Your task to perform on an android device: add a contact in the contacts app Image 0: 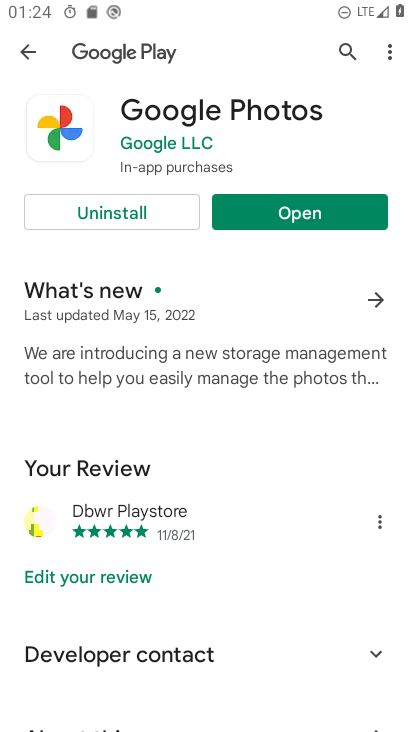
Step 0: press home button
Your task to perform on an android device: add a contact in the contacts app Image 1: 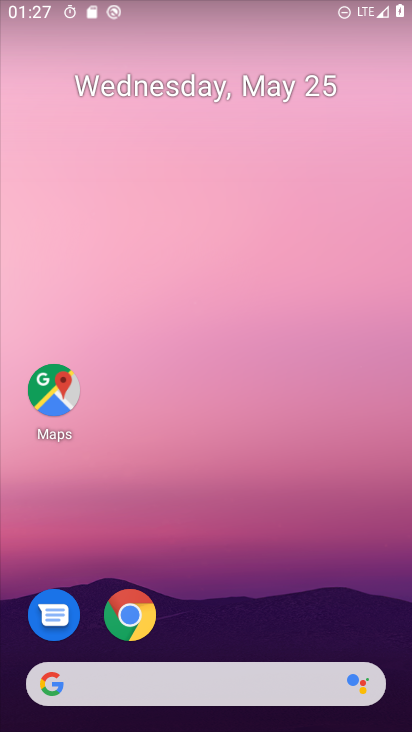
Step 1: drag from (223, 720) to (217, 195)
Your task to perform on an android device: add a contact in the contacts app Image 2: 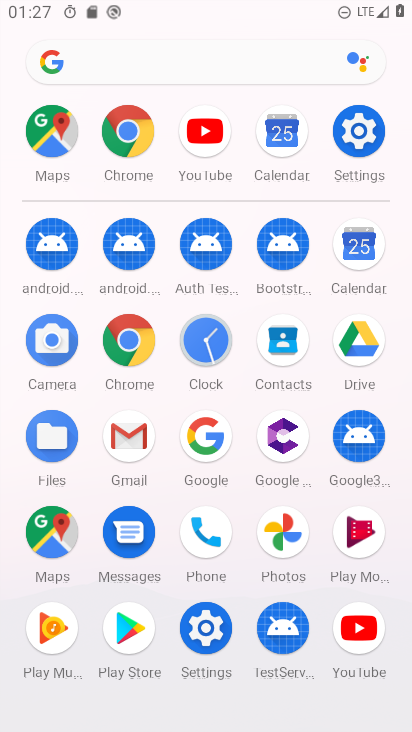
Step 2: click (210, 554)
Your task to perform on an android device: add a contact in the contacts app Image 3: 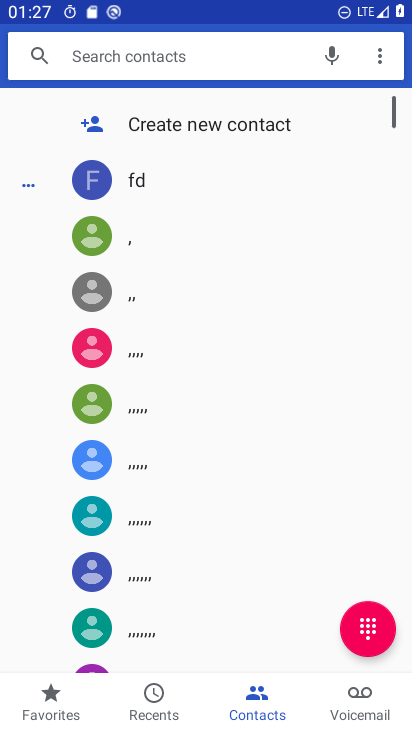
Step 3: click (172, 123)
Your task to perform on an android device: add a contact in the contacts app Image 4: 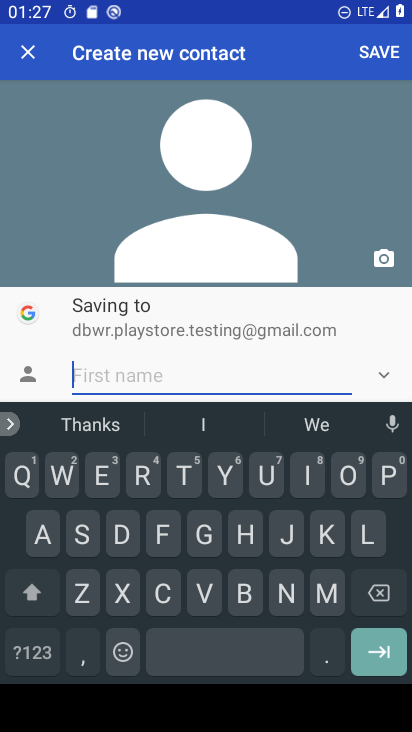
Step 4: click (173, 507)
Your task to perform on an android device: add a contact in the contacts app Image 5: 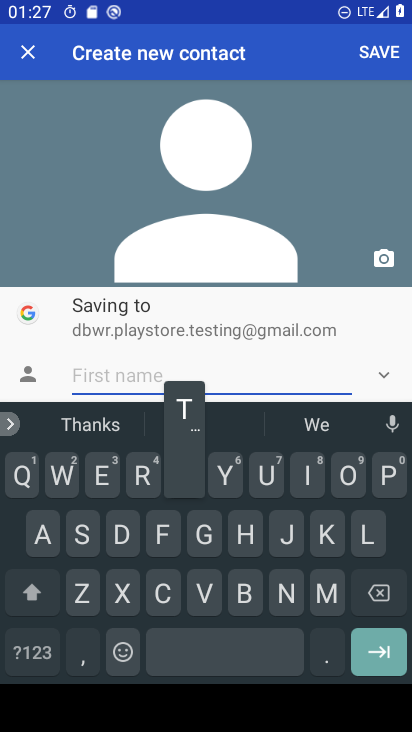
Step 5: click (216, 530)
Your task to perform on an android device: add a contact in the contacts app Image 6: 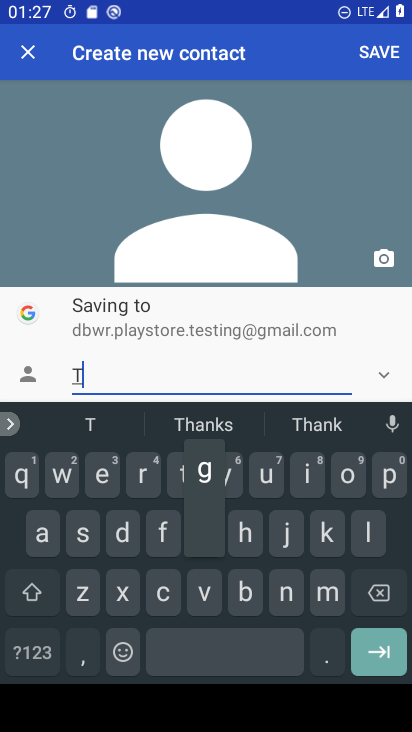
Step 6: click (231, 535)
Your task to perform on an android device: add a contact in the contacts app Image 7: 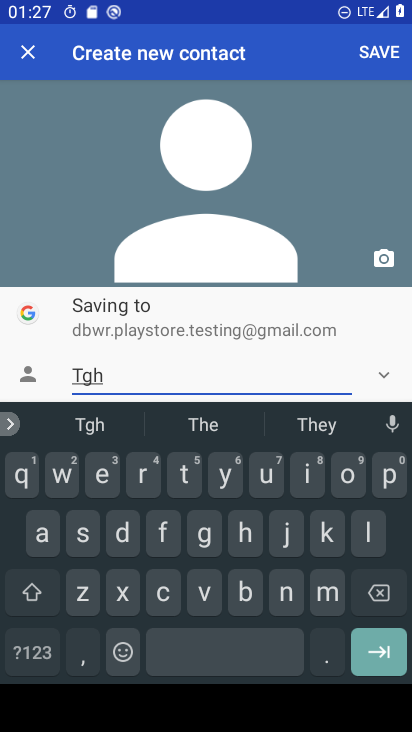
Step 7: click (383, 56)
Your task to perform on an android device: add a contact in the contacts app Image 8: 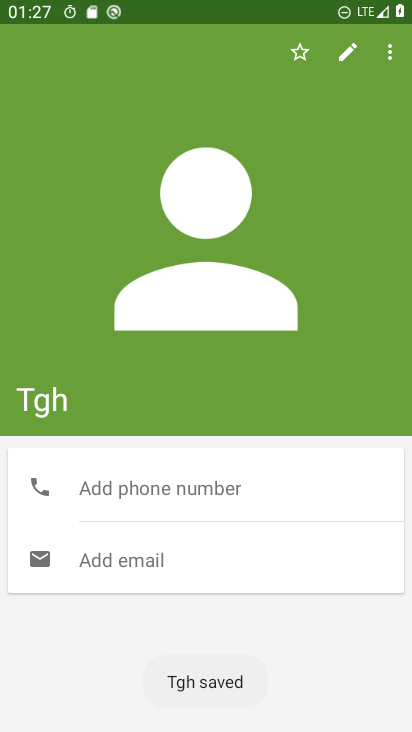
Step 8: task complete